Your task to perform on an android device: Show me productivity apps on the Play Store Image 0: 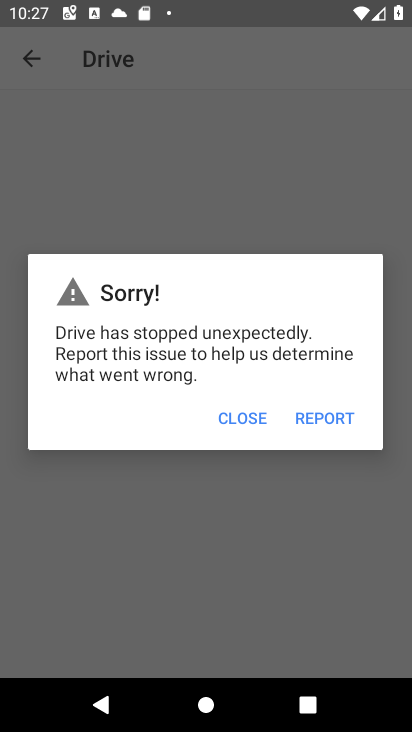
Step 0: press home button
Your task to perform on an android device: Show me productivity apps on the Play Store Image 1: 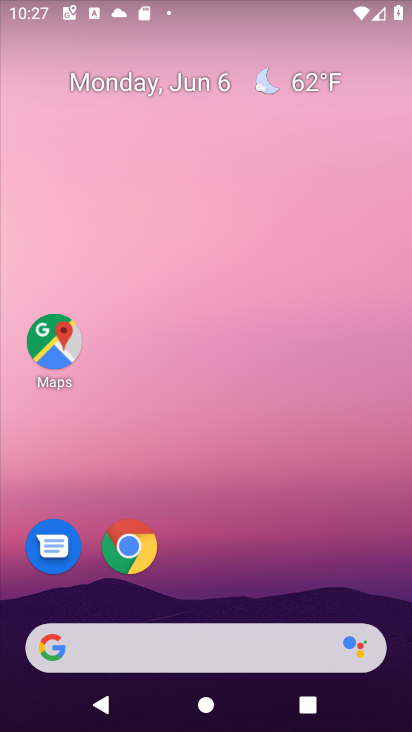
Step 1: drag from (403, 660) to (304, 166)
Your task to perform on an android device: Show me productivity apps on the Play Store Image 2: 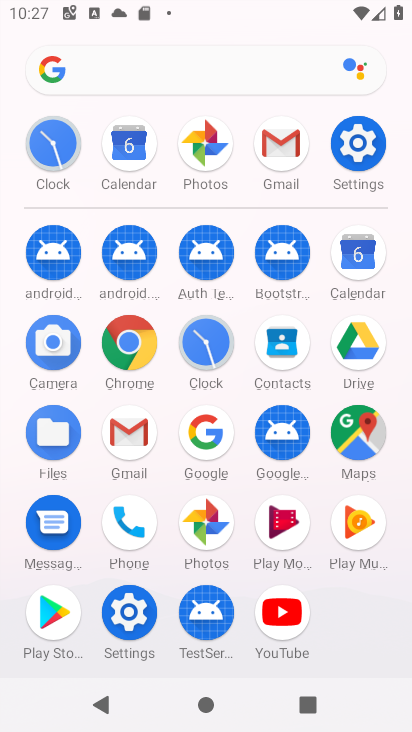
Step 2: click (55, 611)
Your task to perform on an android device: Show me productivity apps on the Play Store Image 3: 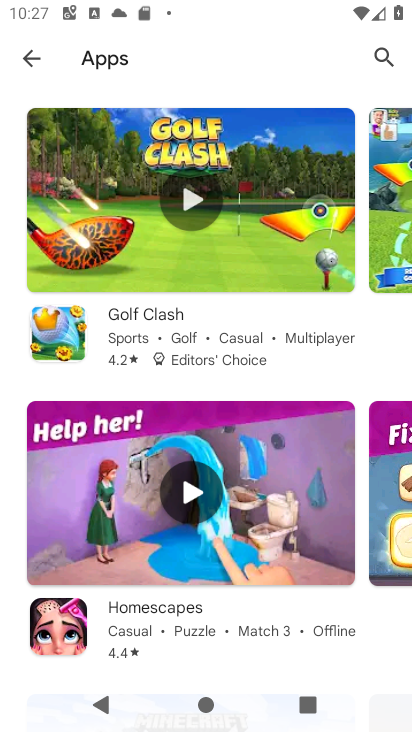
Step 3: press back button
Your task to perform on an android device: Show me productivity apps on the Play Store Image 4: 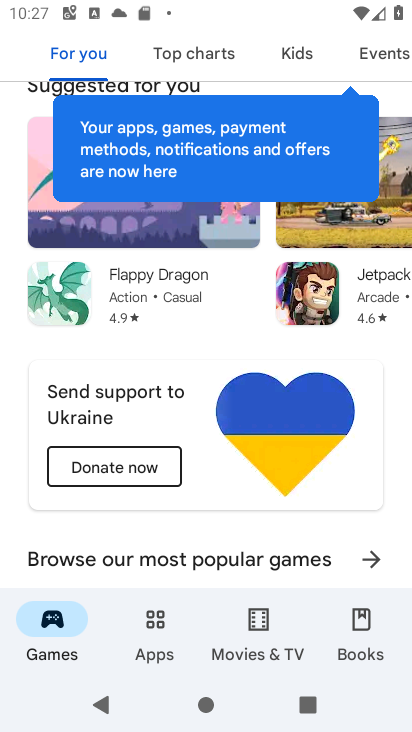
Step 4: click (160, 629)
Your task to perform on an android device: Show me productivity apps on the Play Store Image 5: 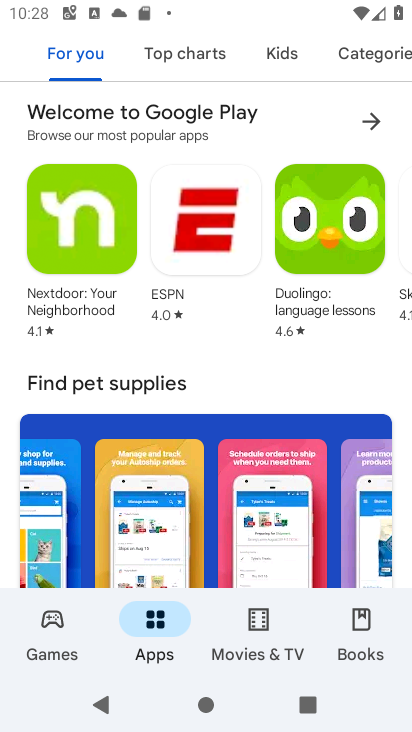
Step 5: drag from (205, 482) to (195, 100)
Your task to perform on an android device: Show me productivity apps on the Play Store Image 6: 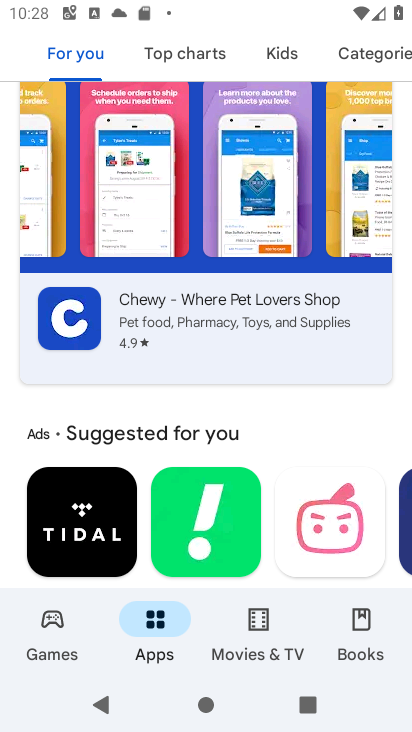
Step 6: click (366, 48)
Your task to perform on an android device: Show me productivity apps on the Play Store Image 7: 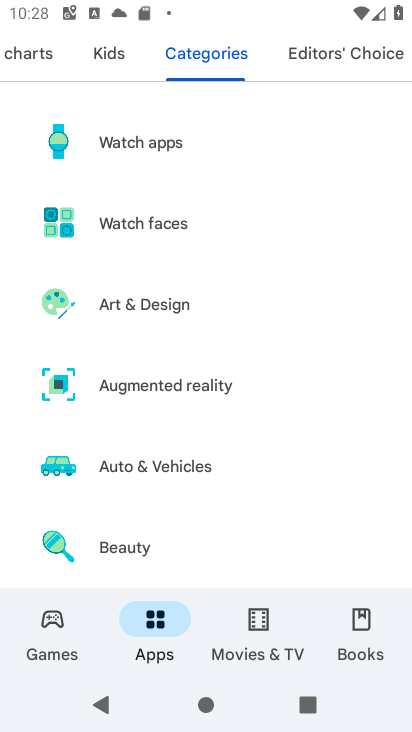
Step 7: drag from (212, 542) to (235, 57)
Your task to perform on an android device: Show me productivity apps on the Play Store Image 8: 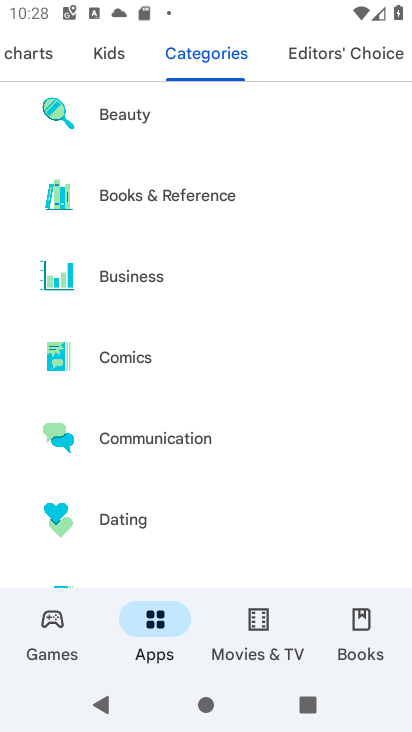
Step 8: drag from (231, 541) to (230, 53)
Your task to perform on an android device: Show me productivity apps on the Play Store Image 9: 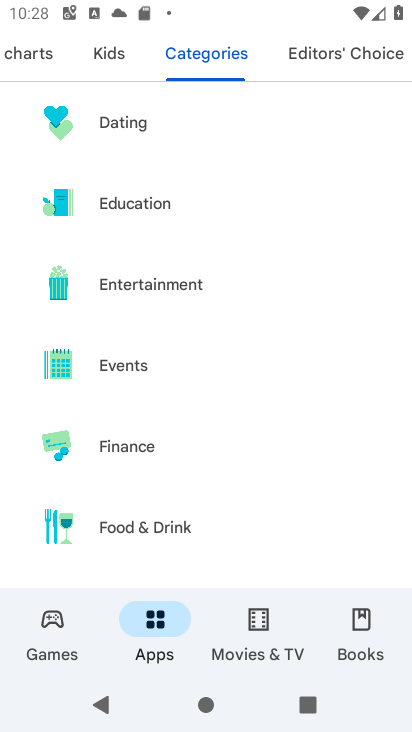
Step 9: drag from (239, 554) to (199, 2)
Your task to perform on an android device: Show me productivity apps on the Play Store Image 10: 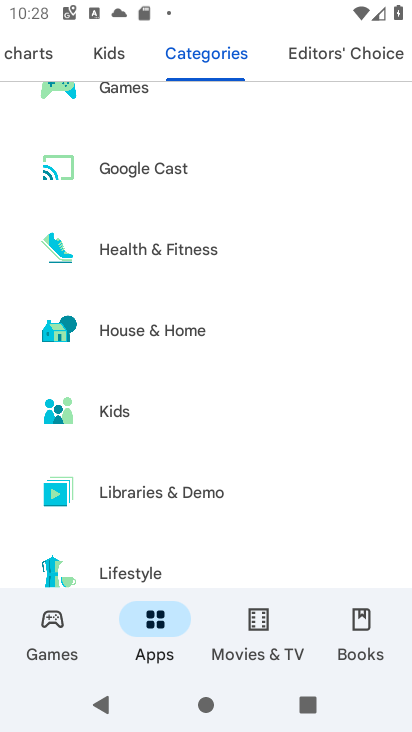
Step 10: drag from (244, 555) to (269, 21)
Your task to perform on an android device: Show me productivity apps on the Play Store Image 11: 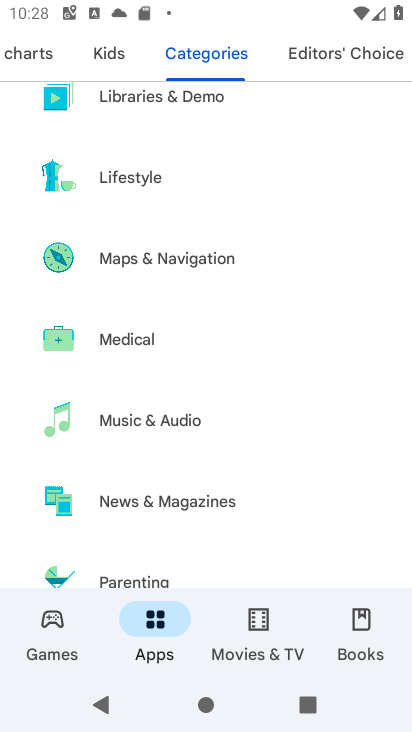
Step 11: drag from (247, 526) to (266, 108)
Your task to perform on an android device: Show me productivity apps on the Play Store Image 12: 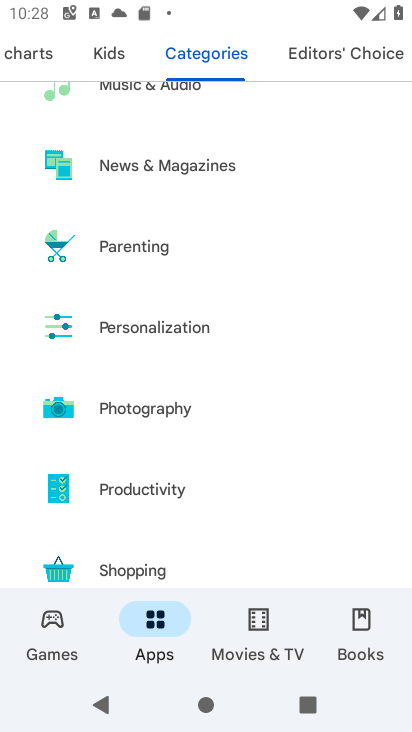
Step 12: click (141, 483)
Your task to perform on an android device: Show me productivity apps on the Play Store Image 13: 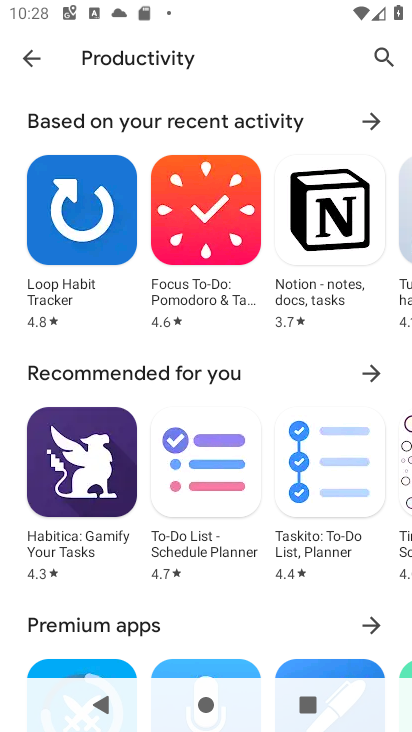
Step 13: drag from (310, 634) to (267, 149)
Your task to perform on an android device: Show me productivity apps on the Play Store Image 14: 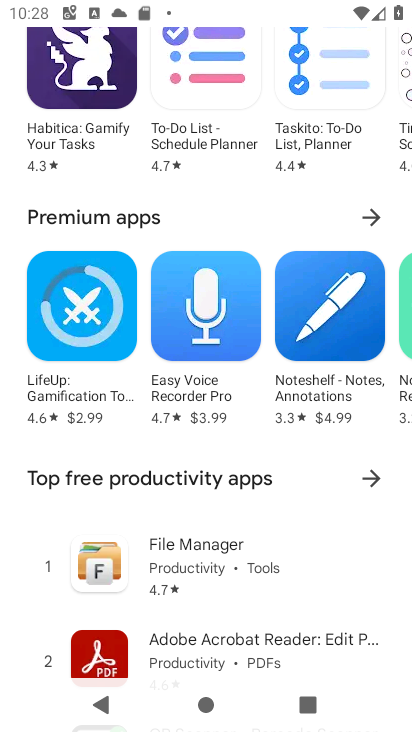
Step 14: click (370, 474)
Your task to perform on an android device: Show me productivity apps on the Play Store Image 15: 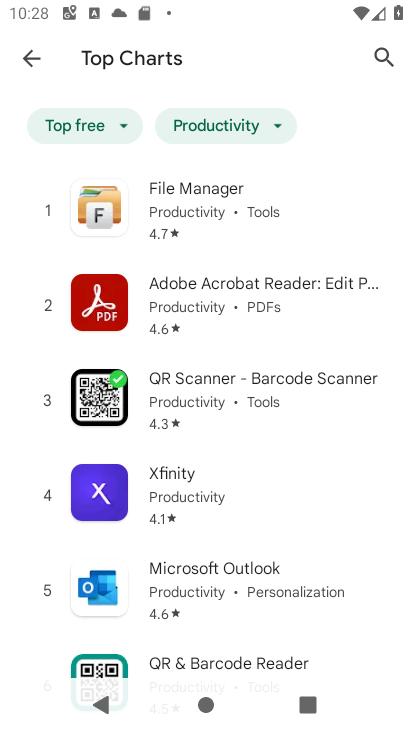
Step 15: task complete